Your task to perform on an android device: turn off javascript in the chrome app Image 0: 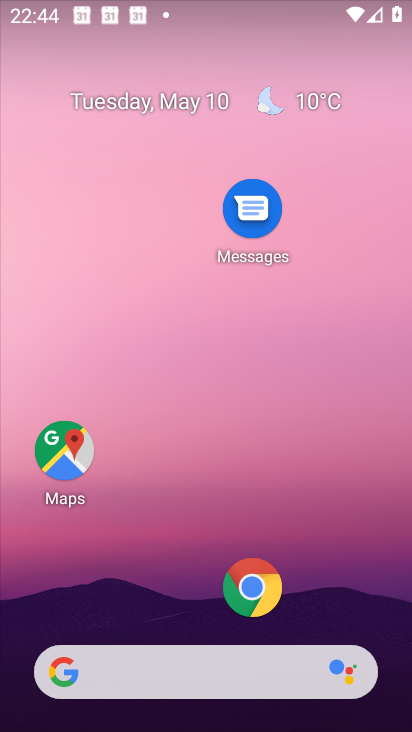
Step 0: click (268, 588)
Your task to perform on an android device: turn off javascript in the chrome app Image 1: 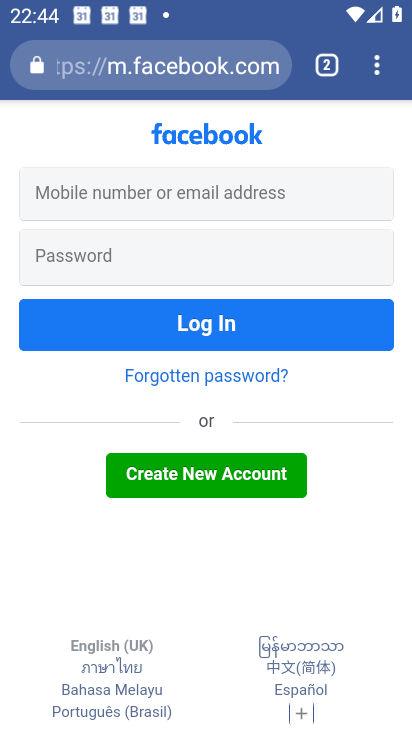
Step 1: click (380, 64)
Your task to perform on an android device: turn off javascript in the chrome app Image 2: 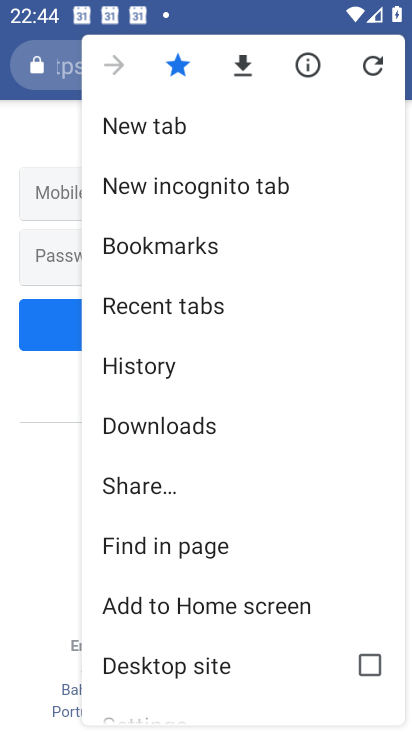
Step 2: drag from (156, 552) to (188, 322)
Your task to perform on an android device: turn off javascript in the chrome app Image 3: 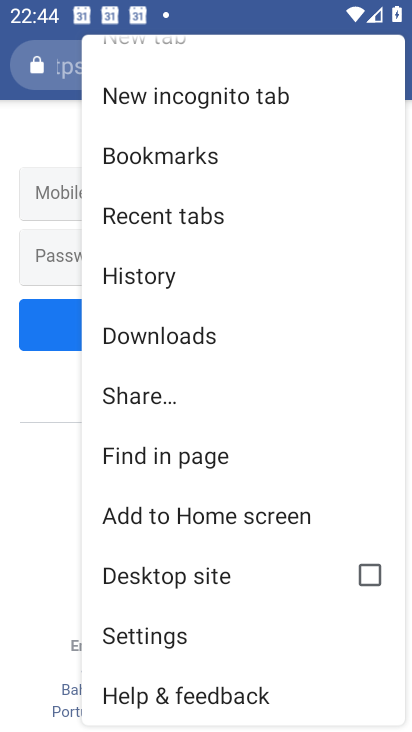
Step 3: click (166, 631)
Your task to perform on an android device: turn off javascript in the chrome app Image 4: 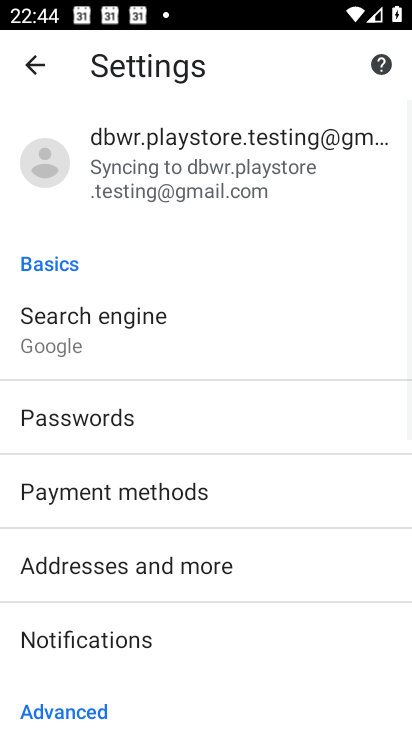
Step 4: drag from (210, 602) to (255, 318)
Your task to perform on an android device: turn off javascript in the chrome app Image 5: 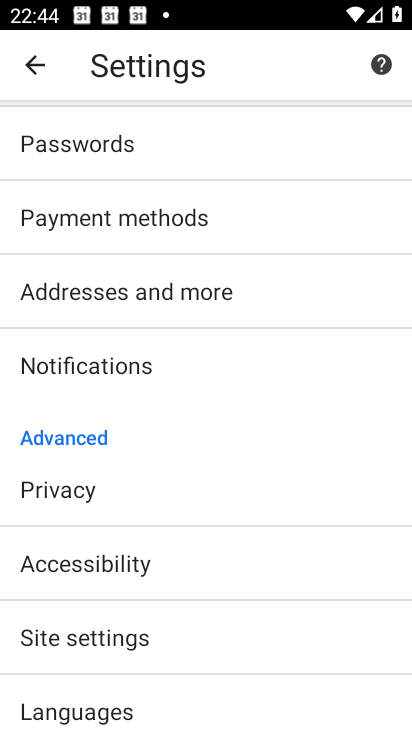
Step 5: click (142, 651)
Your task to perform on an android device: turn off javascript in the chrome app Image 6: 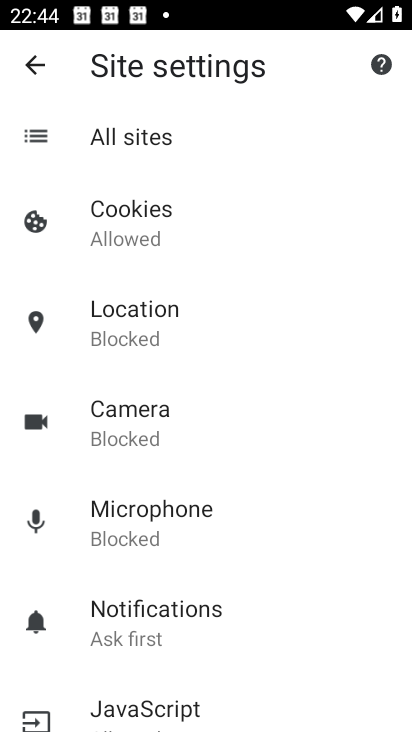
Step 6: click (151, 711)
Your task to perform on an android device: turn off javascript in the chrome app Image 7: 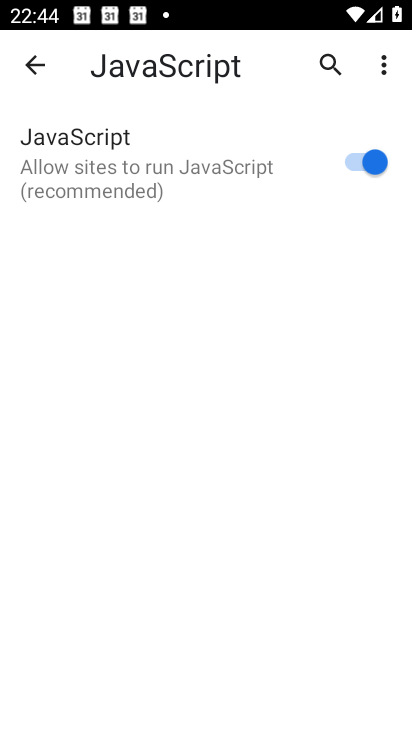
Step 7: click (330, 158)
Your task to perform on an android device: turn off javascript in the chrome app Image 8: 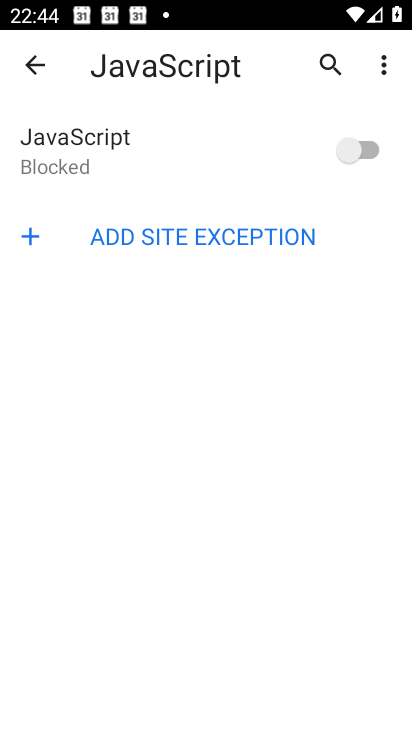
Step 8: task complete